Your task to perform on an android device: Open calendar and show me the fourth week of next month Image 0: 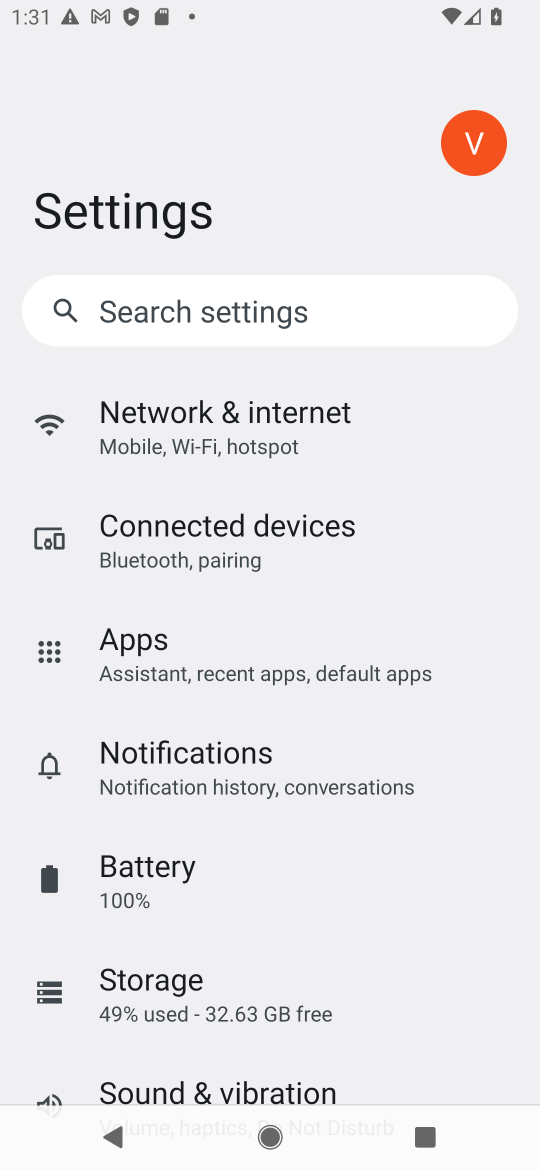
Step 0: press home button
Your task to perform on an android device: Open calendar and show me the fourth week of next month Image 1: 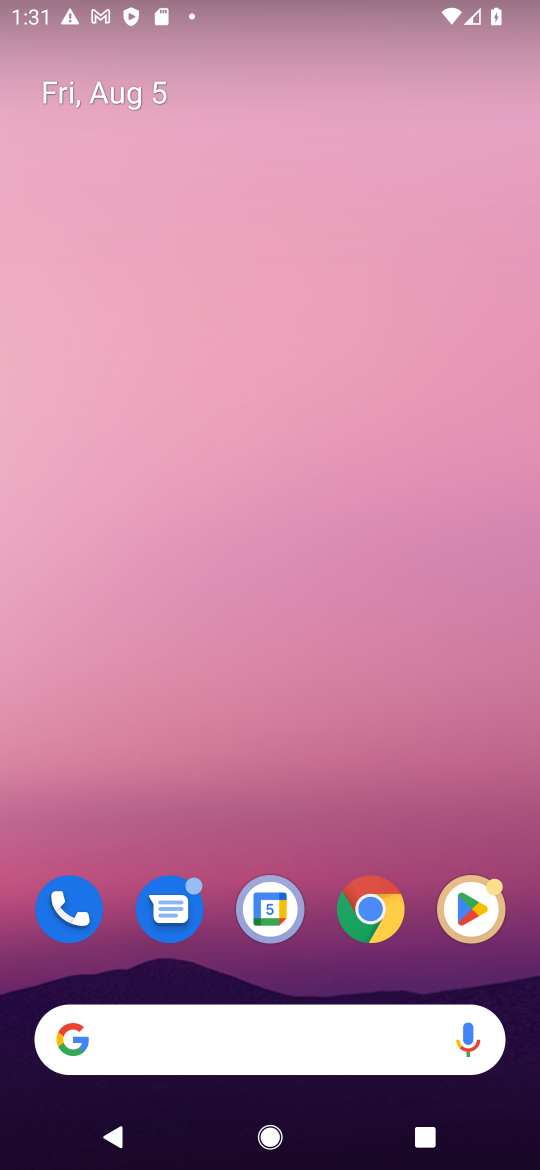
Step 1: drag from (289, 792) to (211, 130)
Your task to perform on an android device: Open calendar and show me the fourth week of next month Image 2: 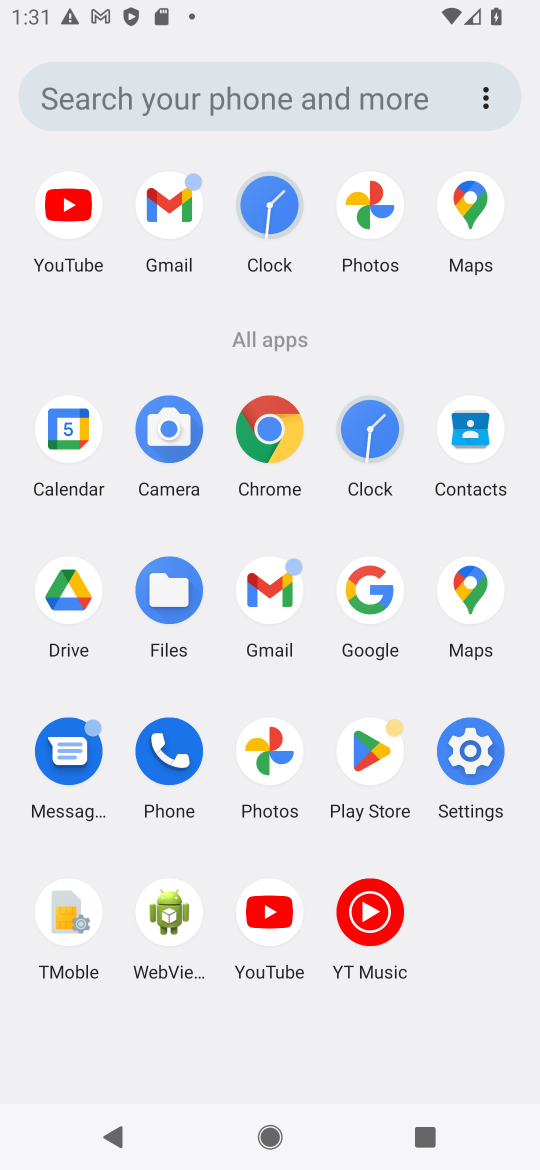
Step 2: click (71, 427)
Your task to perform on an android device: Open calendar and show me the fourth week of next month Image 3: 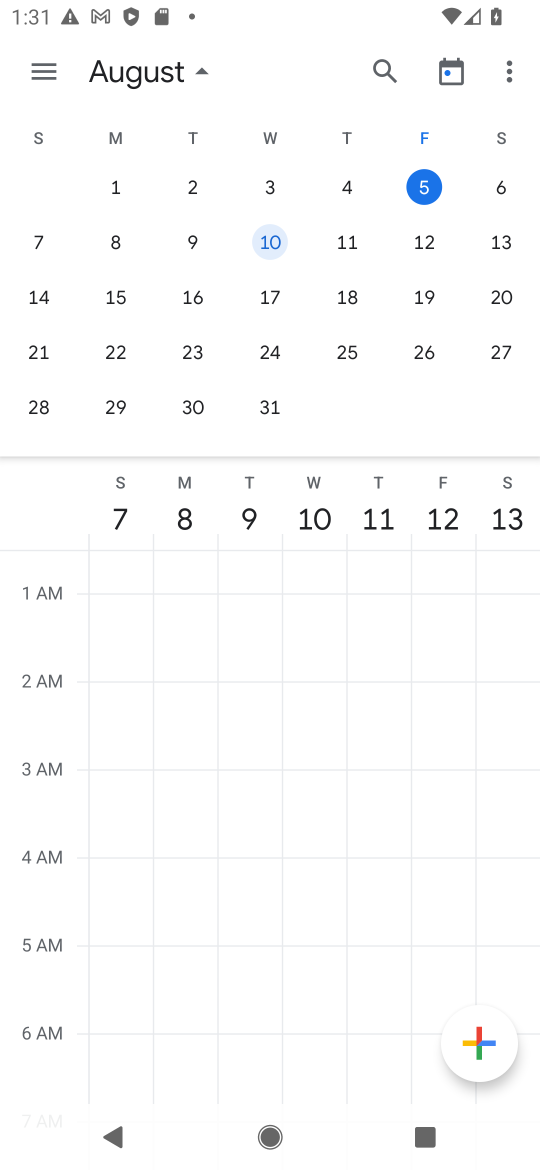
Step 3: drag from (495, 292) to (0, 228)
Your task to perform on an android device: Open calendar and show me the fourth week of next month Image 4: 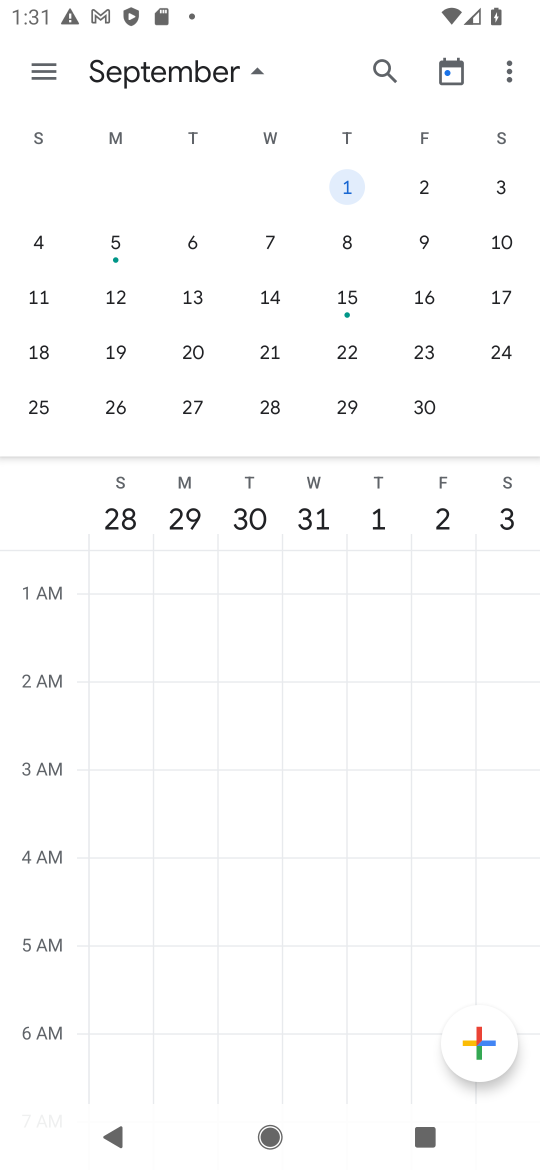
Step 4: click (263, 352)
Your task to perform on an android device: Open calendar and show me the fourth week of next month Image 5: 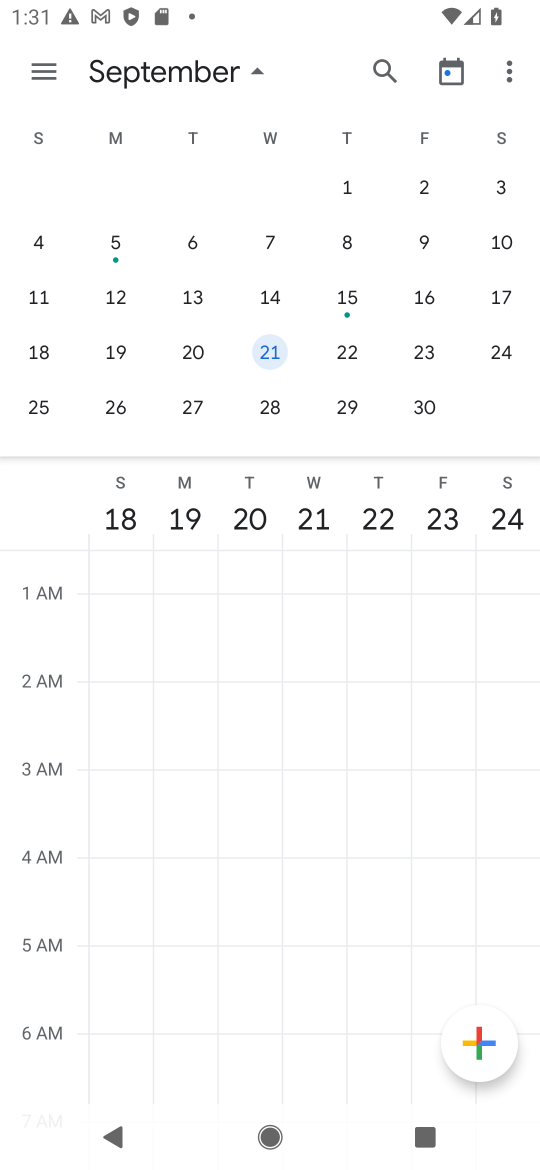
Step 5: task complete